Your task to perform on an android device: toggle airplane mode Image 0: 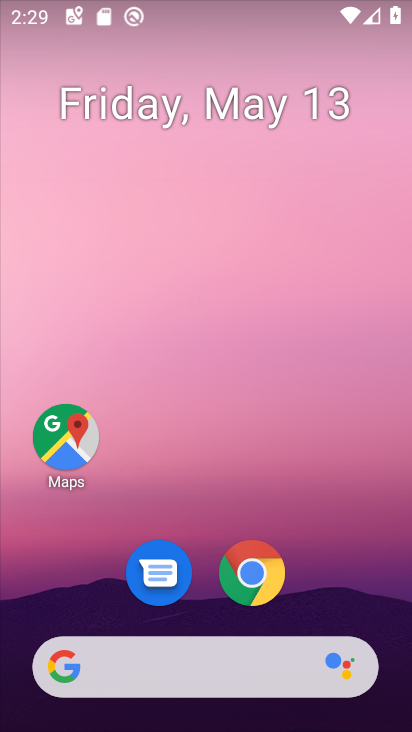
Step 0: drag from (341, 696) to (184, 0)
Your task to perform on an android device: toggle airplane mode Image 1: 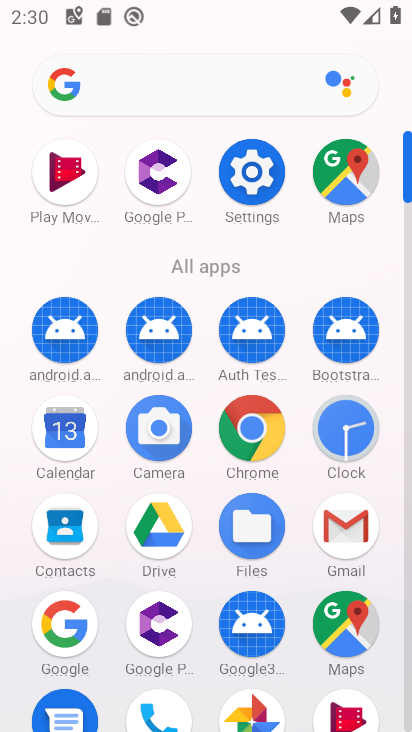
Step 1: click (248, 164)
Your task to perform on an android device: toggle airplane mode Image 2: 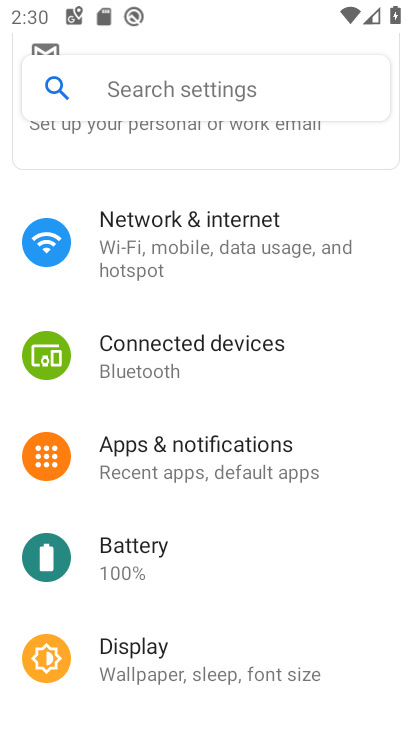
Step 2: click (158, 252)
Your task to perform on an android device: toggle airplane mode Image 3: 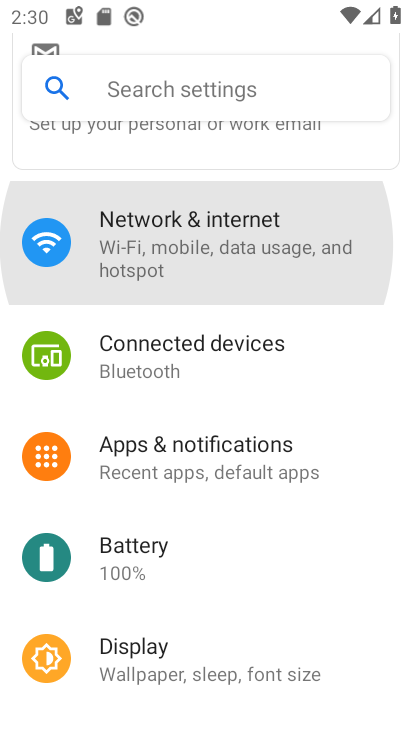
Step 3: click (158, 251)
Your task to perform on an android device: toggle airplane mode Image 4: 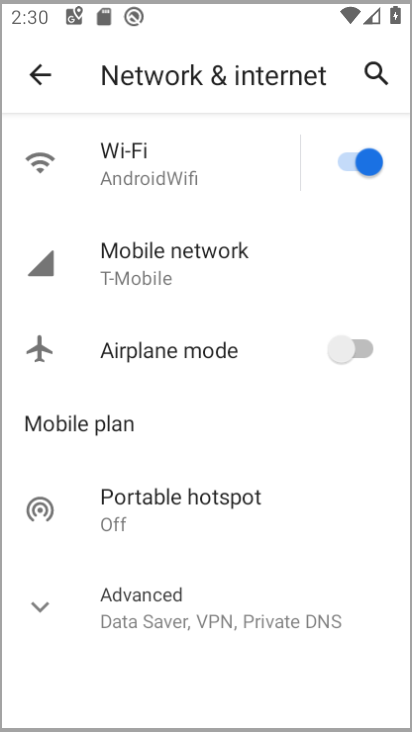
Step 4: click (158, 251)
Your task to perform on an android device: toggle airplane mode Image 5: 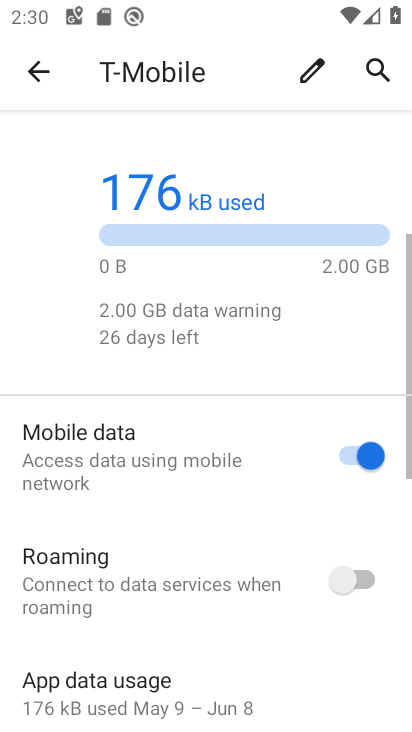
Step 5: click (352, 342)
Your task to perform on an android device: toggle airplane mode Image 6: 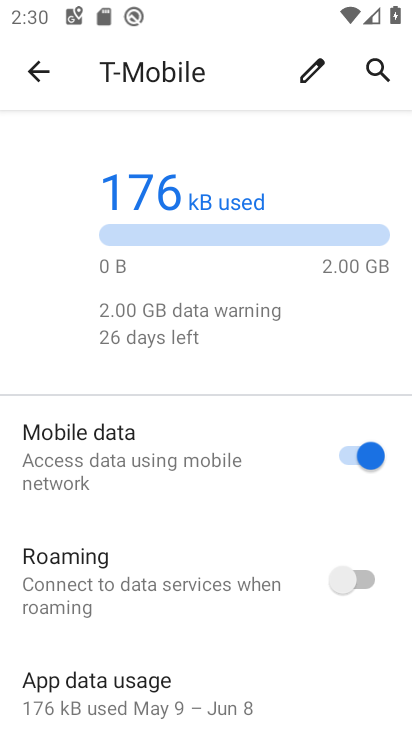
Step 6: click (21, 70)
Your task to perform on an android device: toggle airplane mode Image 7: 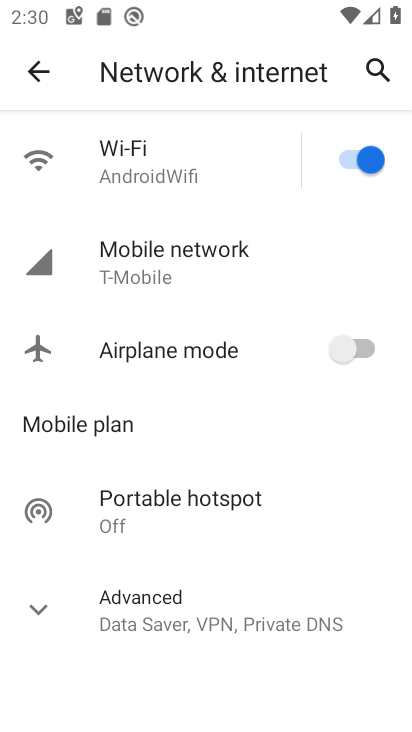
Step 7: click (347, 350)
Your task to perform on an android device: toggle airplane mode Image 8: 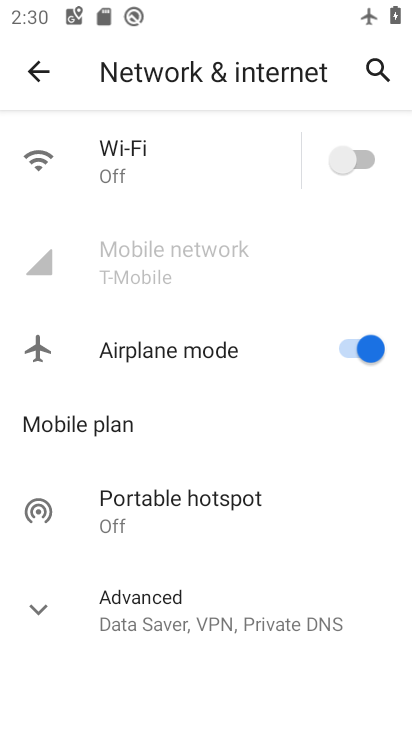
Step 8: task complete